Your task to perform on an android device: Add "alienware area 51" to the cart on newegg.com Image 0: 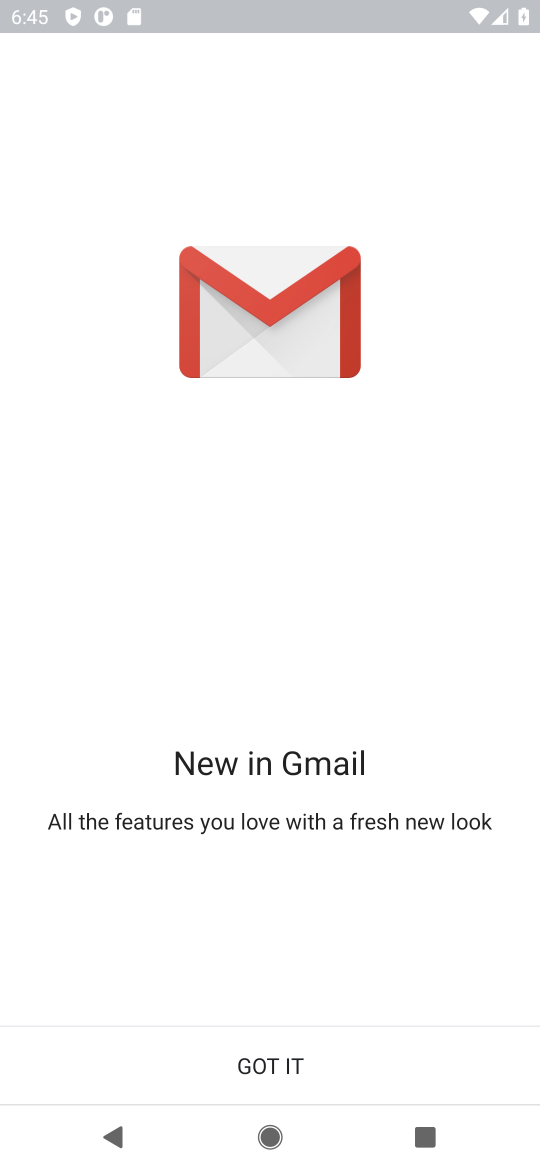
Step 0: press home button
Your task to perform on an android device: Add "alienware area 51" to the cart on newegg.com Image 1: 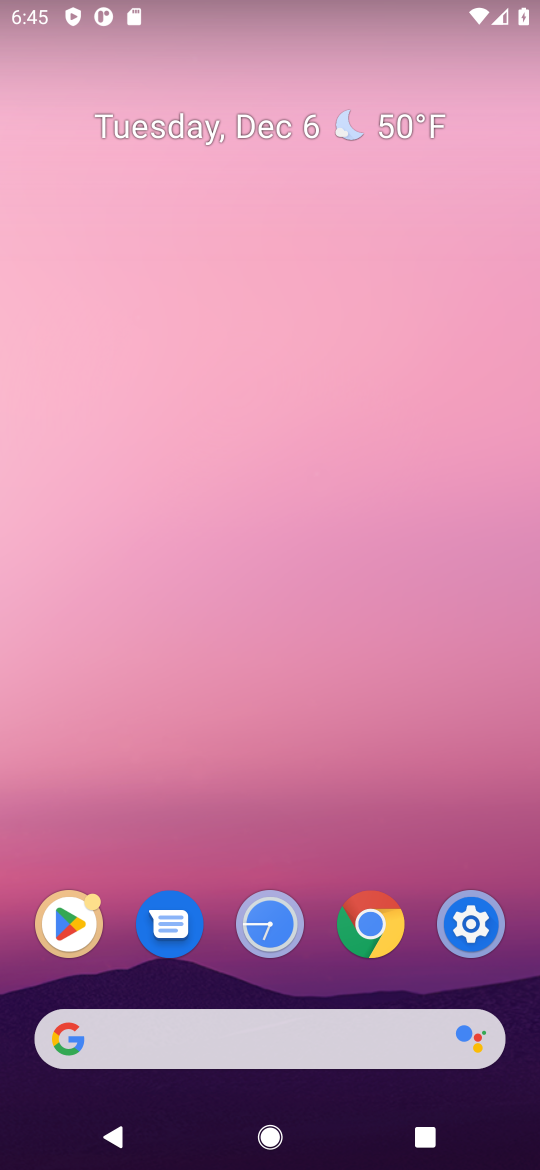
Step 1: click (263, 1020)
Your task to perform on an android device: Add "alienware area 51" to the cart on newegg.com Image 2: 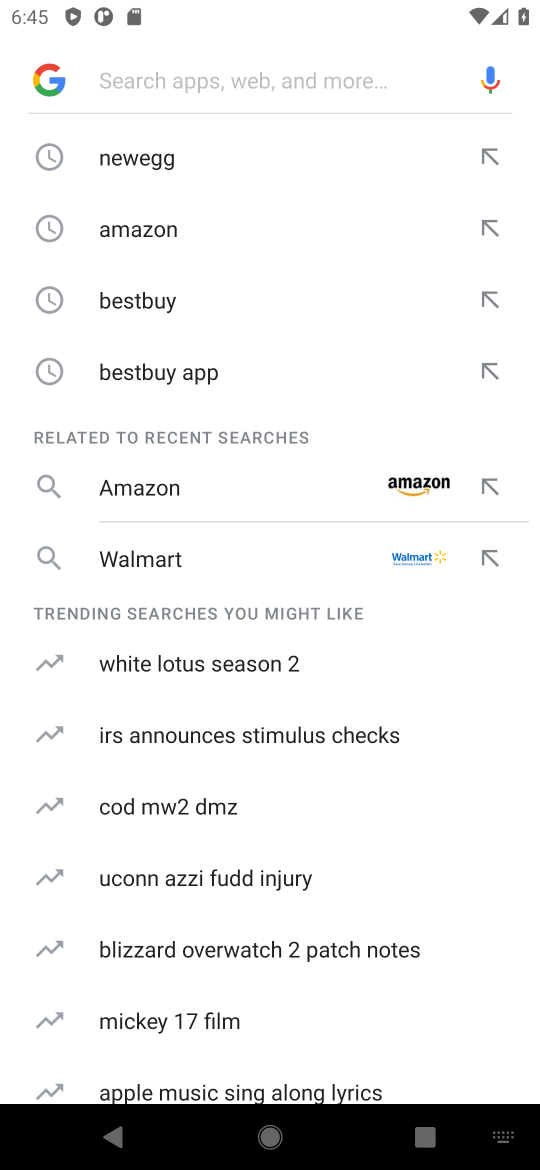
Step 2: type "newegg"
Your task to perform on an android device: Add "alienware area 51" to the cart on newegg.com Image 3: 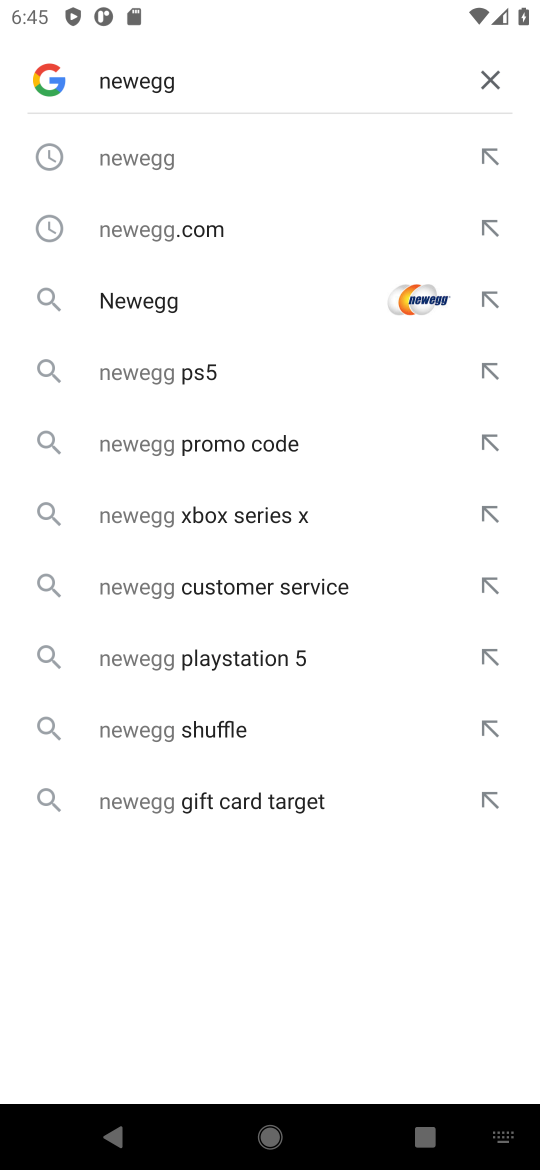
Step 3: click (171, 291)
Your task to perform on an android device: Add "alienware area 51" to the cart on newegg.com Image 4: 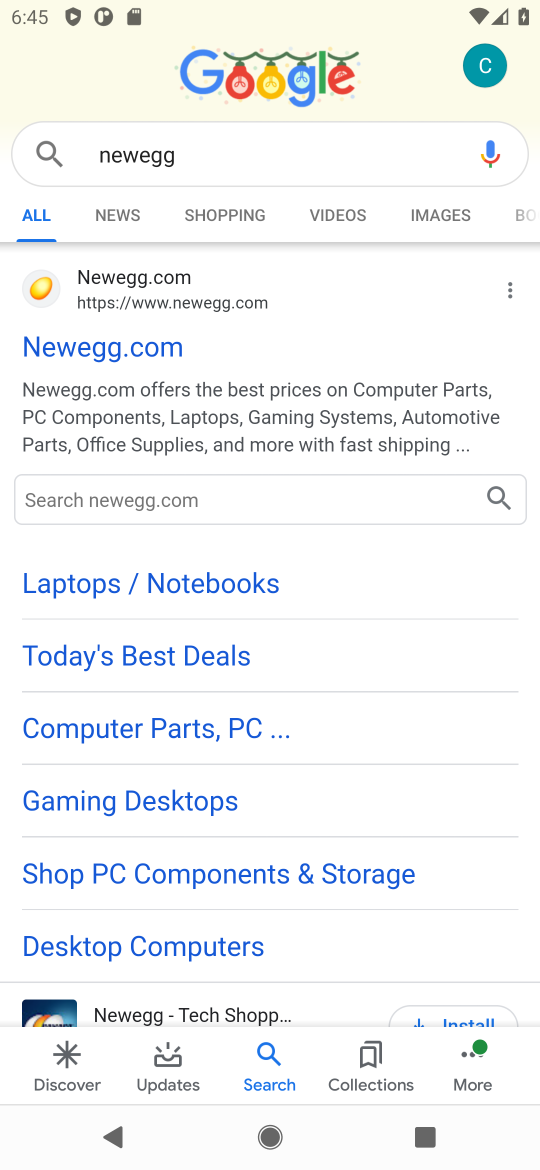
Step 4: click (26, 338)
Your task to perform on an android device: Add "alienware area 51" to the cart on newegg.com Image 5: 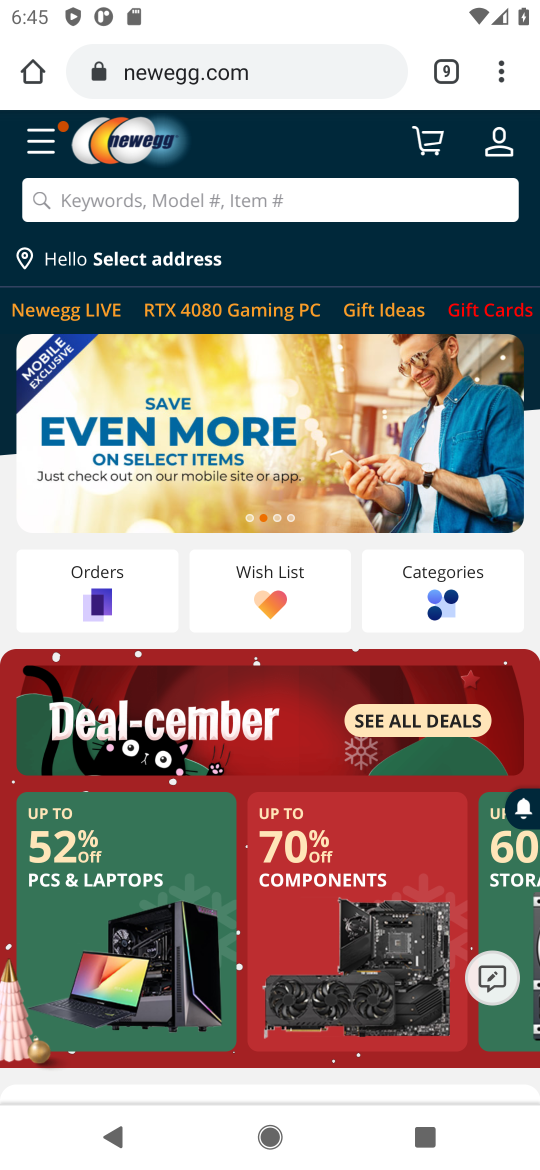
Step 5: click (115, 203)
Your task to perform on an android device: Add "alienware area 51" to the cart on newegg.com Image 6: 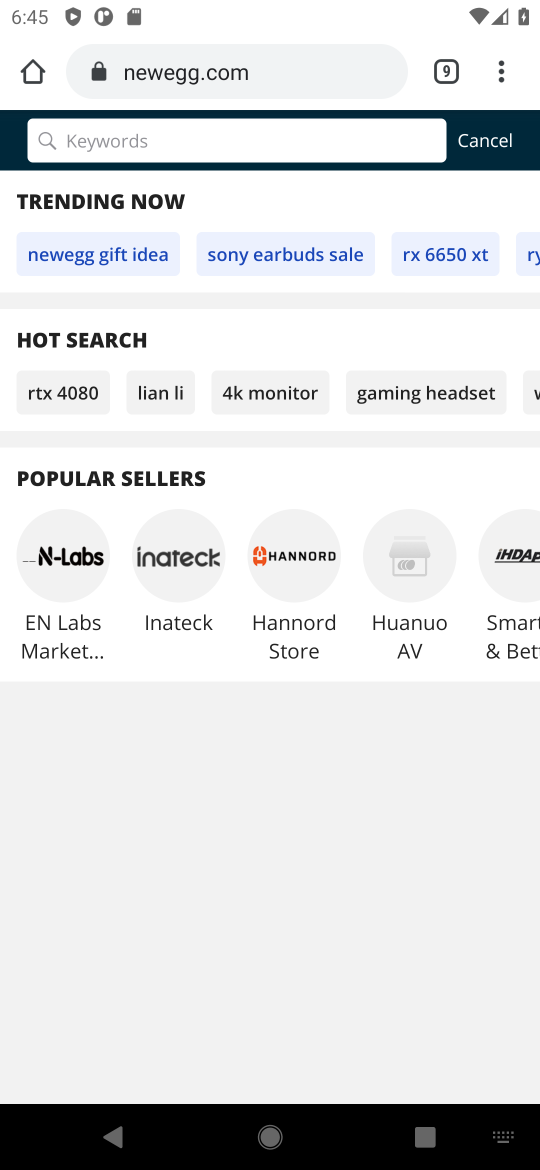
Step 6: type "alienware area 51"
Your task to perform on an android device: Add "alienware area 51" to the cart on newegg.com Image 7: 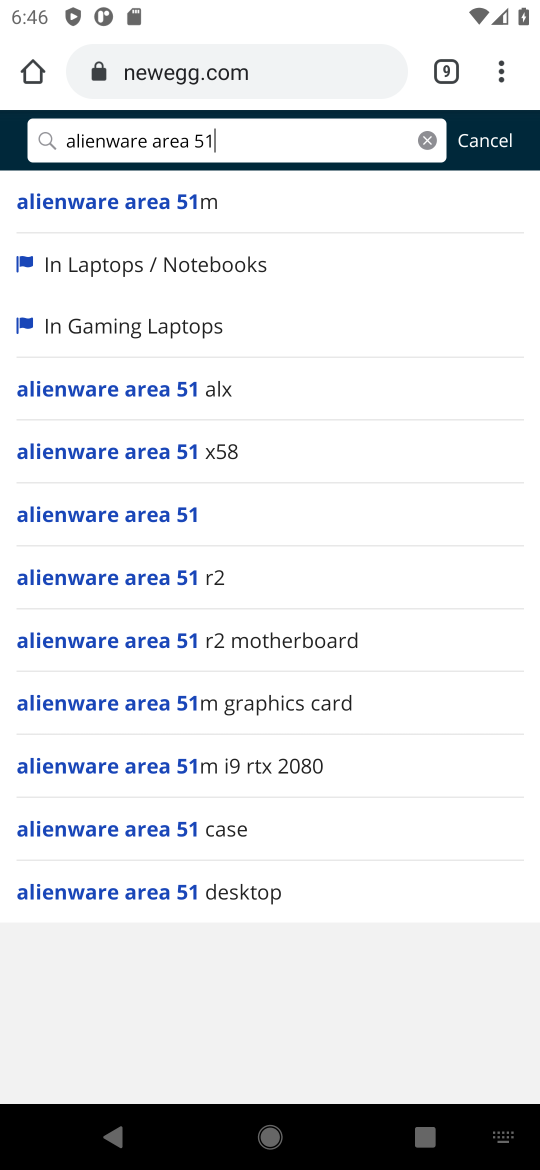
Step 7: click (134, 216)
Your task to perform on an android device: Add "alienware area 51" to the cart on newegg.com Image 8: 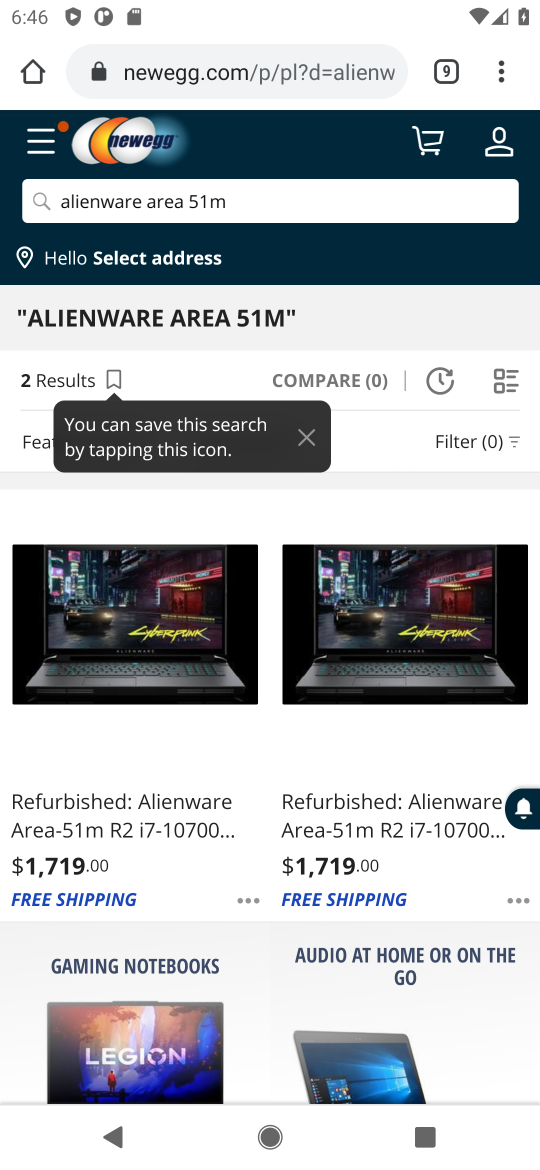
Step 8: click (318, 438)
Your task to perform on an android device: Add "alienware area 51" to the cart on newegg.com Image 9: 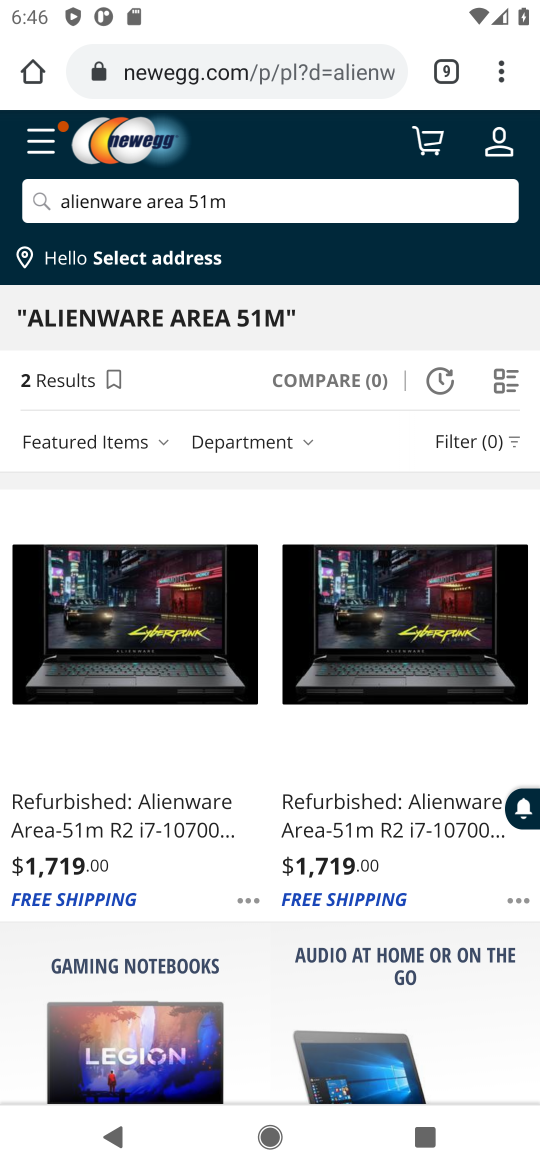
Step 9: click (145, 829)
Your task to perform on an android device: Add "alienware area 51" to the cart on newegg.com Image 10: 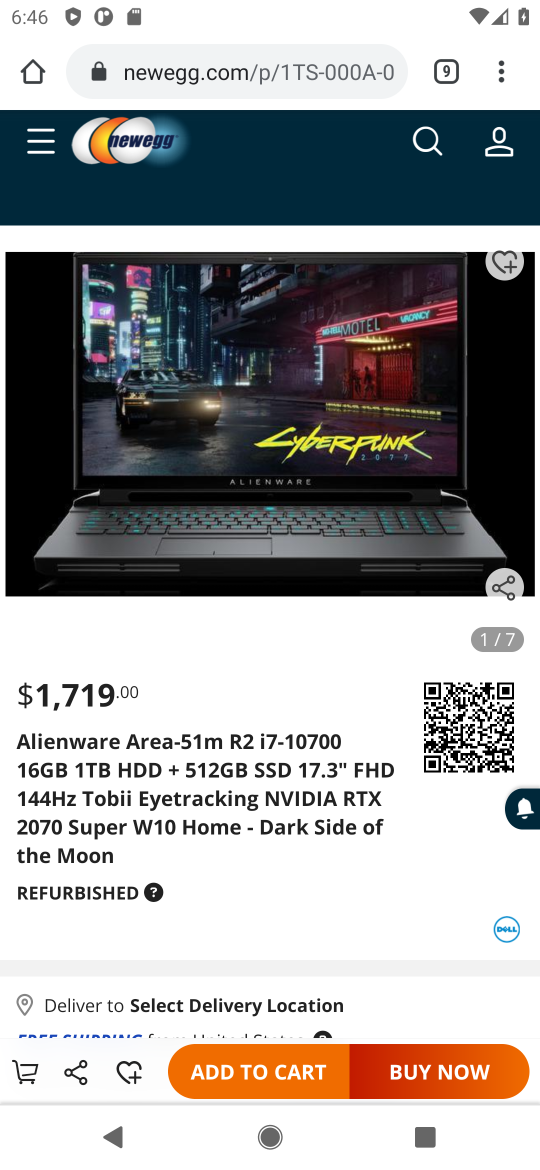
Step 10: click (199, 1066)
Your task to perform on an android device: Add "alienware area 51" to the cart on newegg.com Image 11: 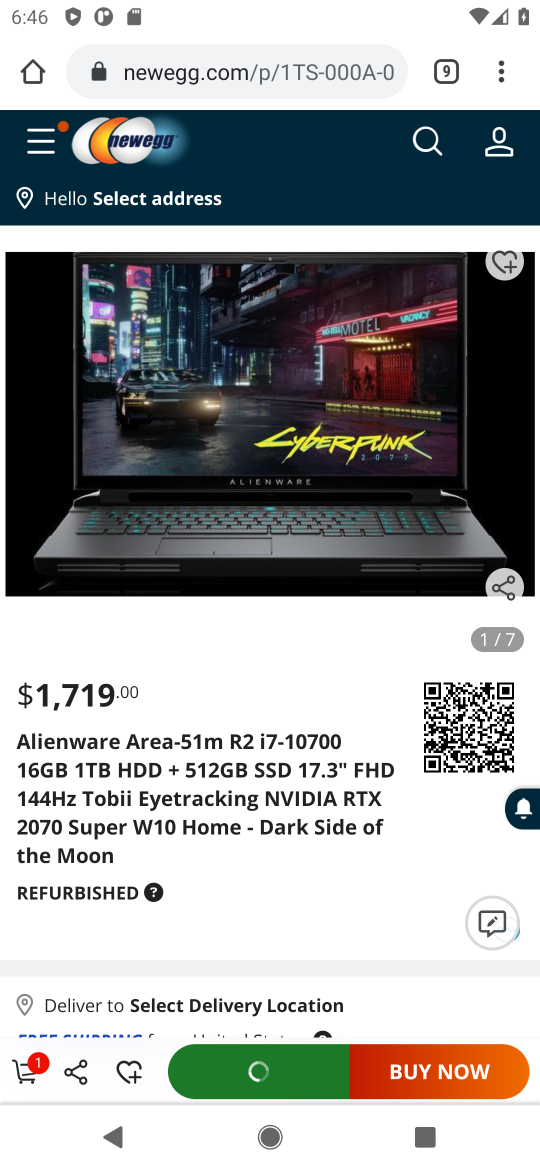
Step 11: task complete